Your task to perform on an android device: change notifications settings Image 0: 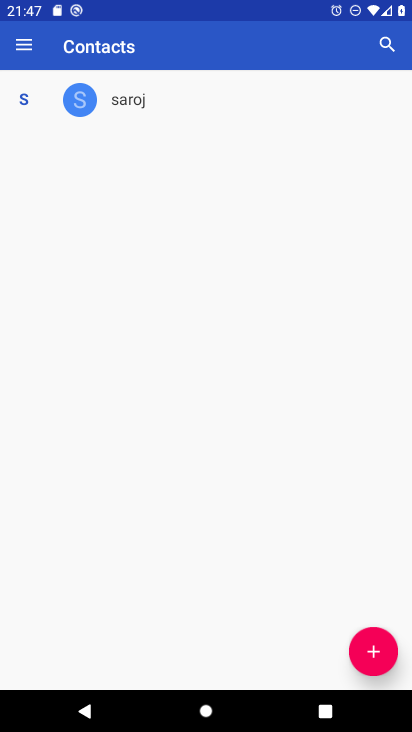
Step 0: press home button
Your task to perform on an android device: change notifications settings Image 1: 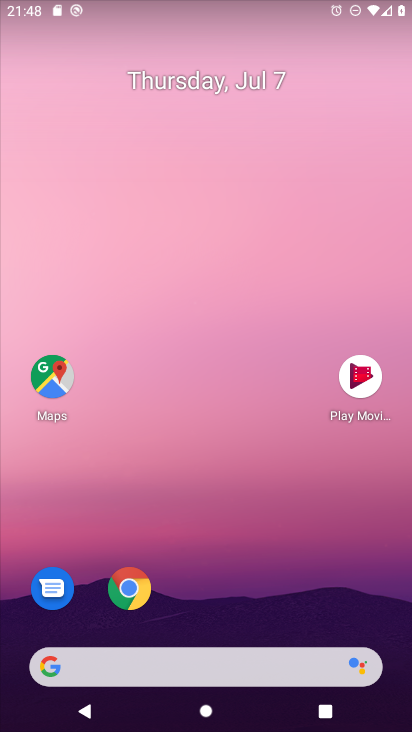
Step 1: drag from (238, 559) to (224, 151)
Your task to perform on an android device: change notifications settings Image 2: 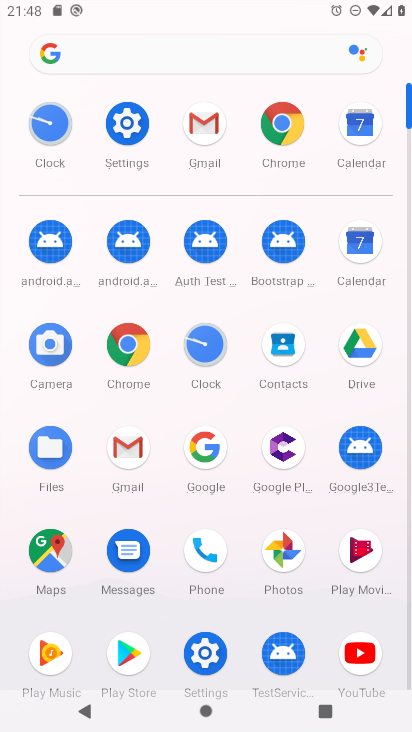
Step 2: click (126, 110)
Your task to perform on an android device: change notifications settings Image 3: 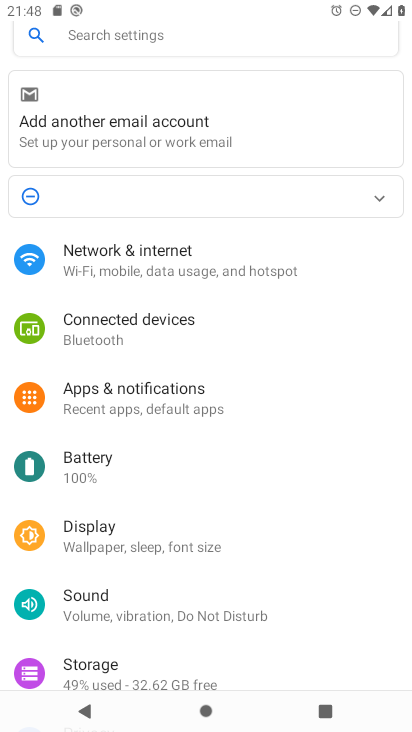
Step 3: click (143, 405)
Your task to perform on an android device: change notifications settings Image 4: 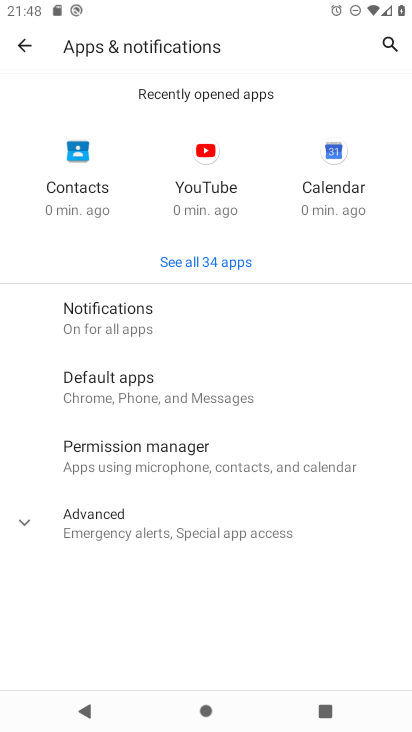
Step 4: click (136, 305)
Your task to perform on an android device: change notifications settings Image 5: 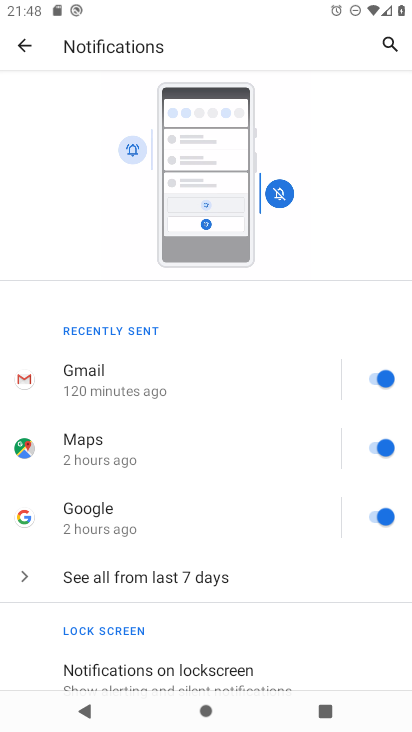
Step 5: click (223, 577)
Your task to perform on an android device: change notifications settings Image 6: 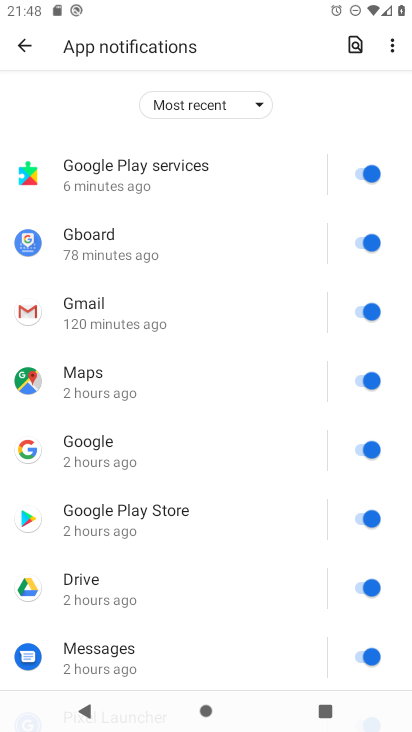
Step 6: drag from (235, 493) to (245, 166)
Your task to perform on an android device: change notifications settings Image 7: 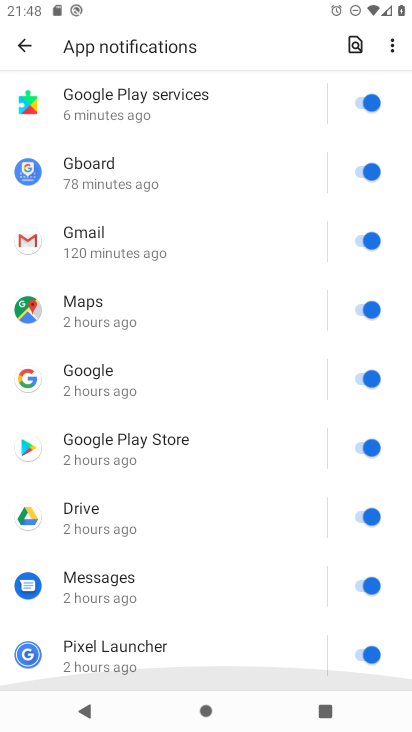
Step 7: drag from (251, 186) to (295, 353)
Your task to perform on an android device: change notifications settings Image 8: 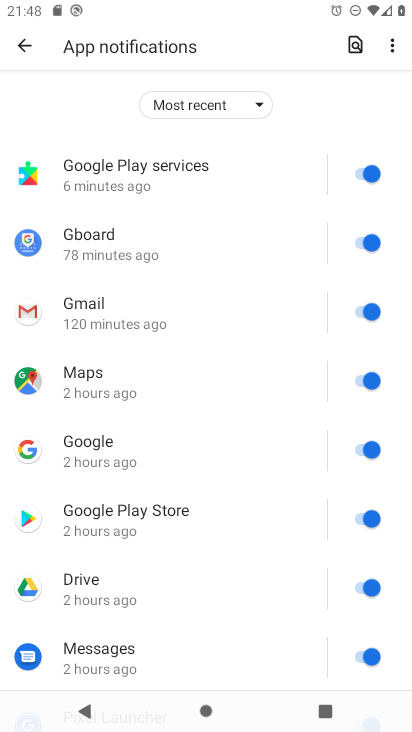
Step 8: click (364, 168)
Your task to perform on an android device: change notifications settings Image 9: 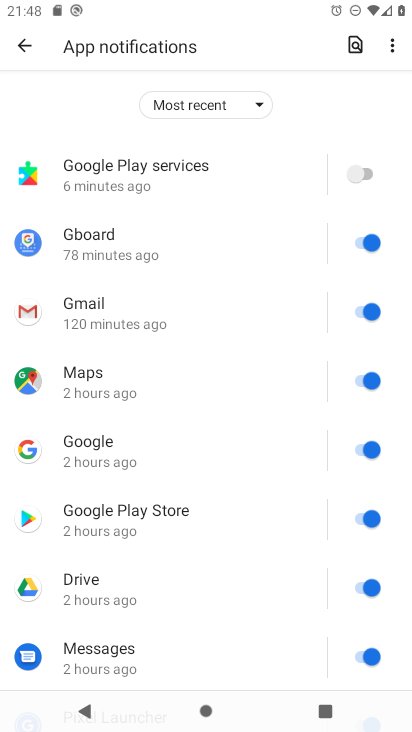
Step 9: click (367, 231)
Your task to perform on an android device: change notifications settings Image 10: 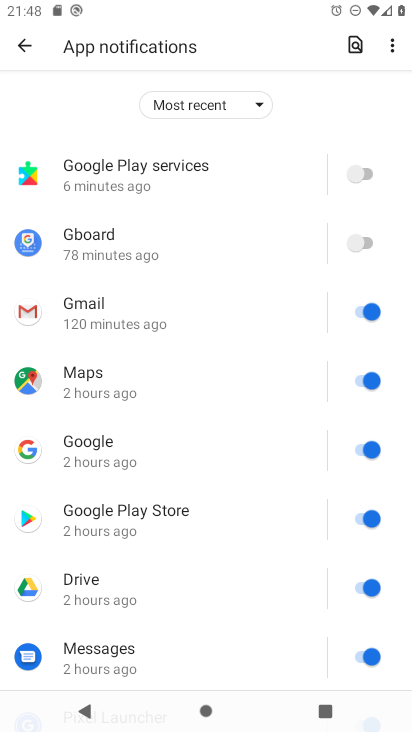
Step 10: click (367, 303)
Your task to perform on an android device: change notifications settings Image 11: 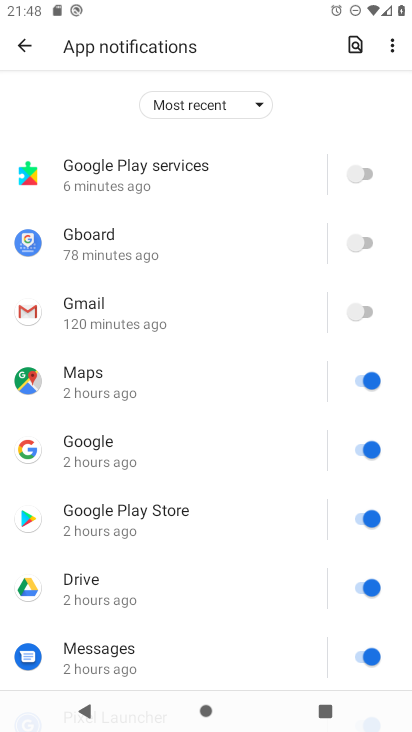
Step 11: click (367, 375)
Your task to perform on an android device: change notifications settings Image 12: 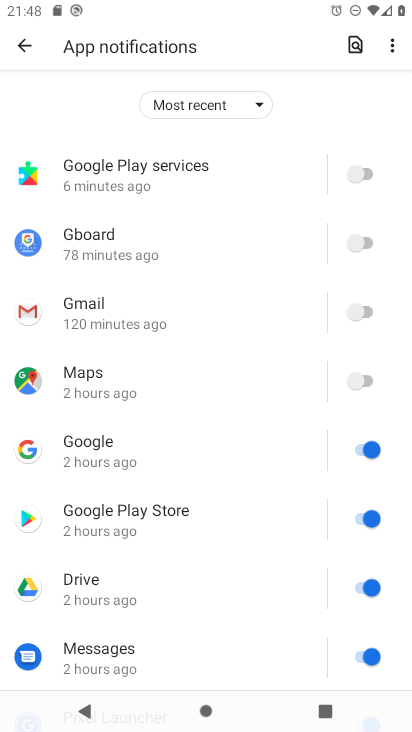
Step 12: click (374, 457)
Your task to perform on an android device: change notifications settings Image 13: 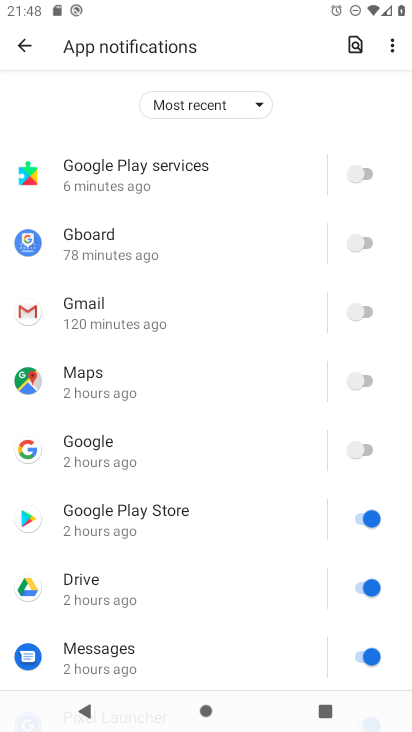
Step 13: click (374, 526)
Your task to perform on an android device: change notifications settings Image 14: 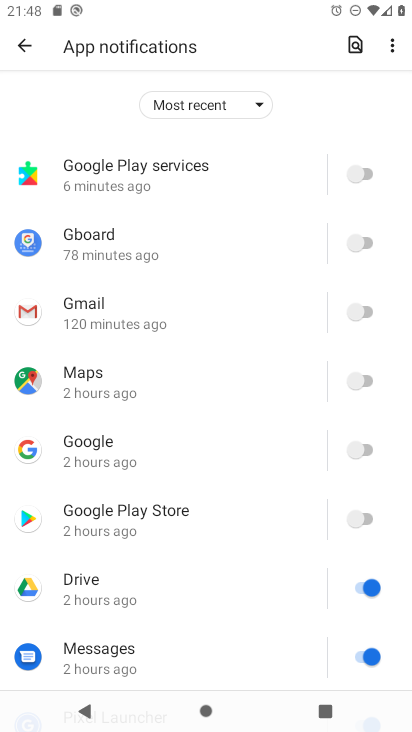
Step 14: click (370, 586)
Your task to perform on an android device: change notifications settings Image 15: 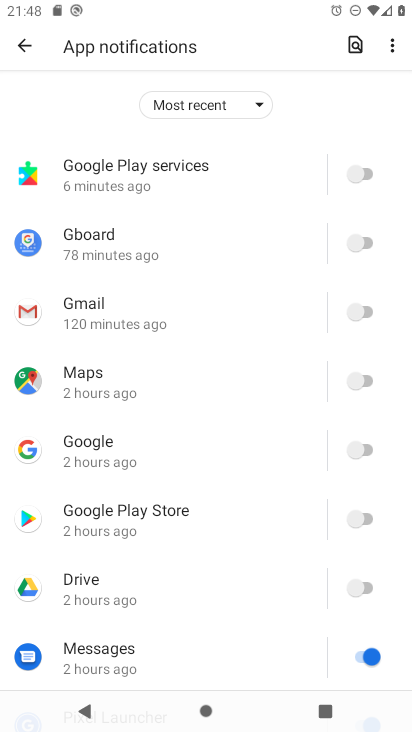
Step 15: click (366, 665)
Your task to perform on an android device: change notifications settings Image 16: 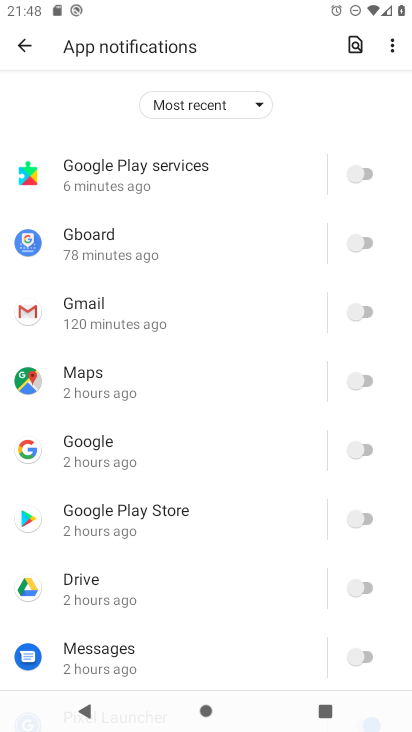
Step 16: drag from (300, 612) to (278, 163)
Your task to perform on an android device: change notifications settings Image 17: 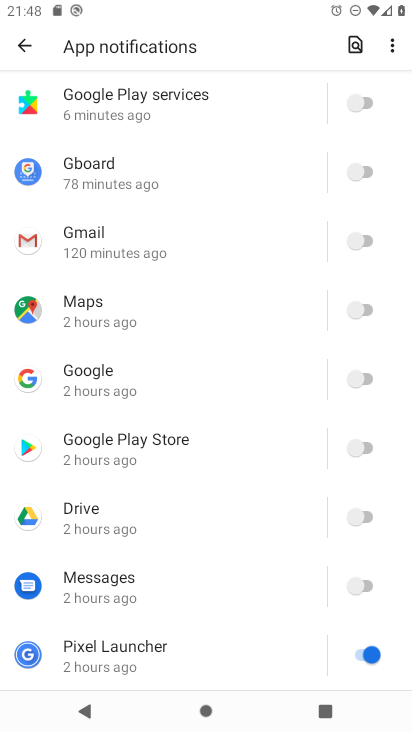
Step 17: click (371, 650)
Your task to perform on an android device: change notifications settings Image 18: 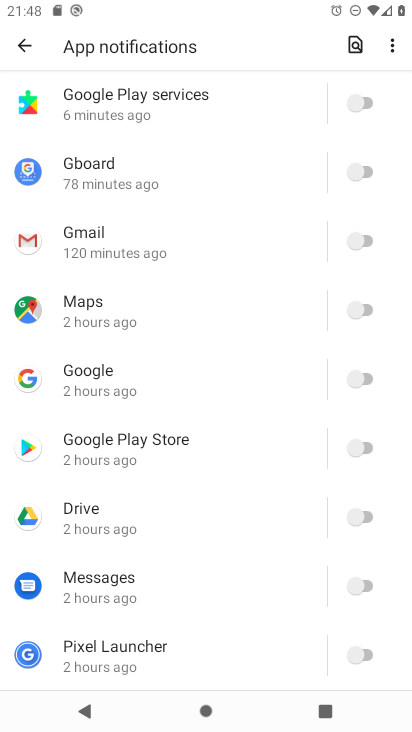
Step 18: task complete